Your task to perform on an android device: Show me popular videos on Youtube Image 0: 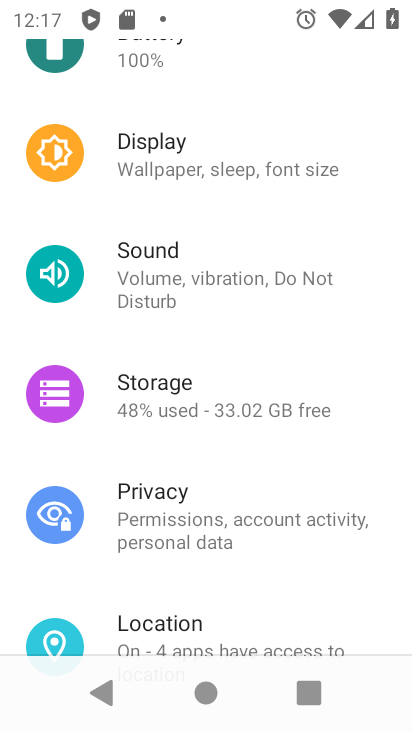
Step 0: press home button
Your task to perform on an android device: Show me popular videos on Youtube Image 1: 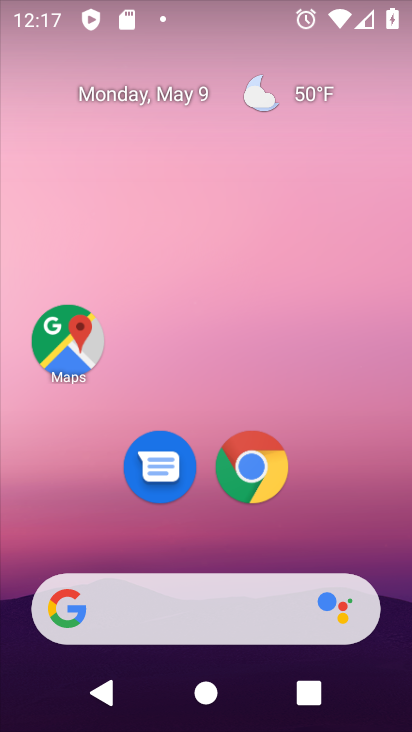
Step 1: drag from (205, 540) to (220, 35)
Your task to perform on an android device: Show me popular videos on Youtube Image 2: 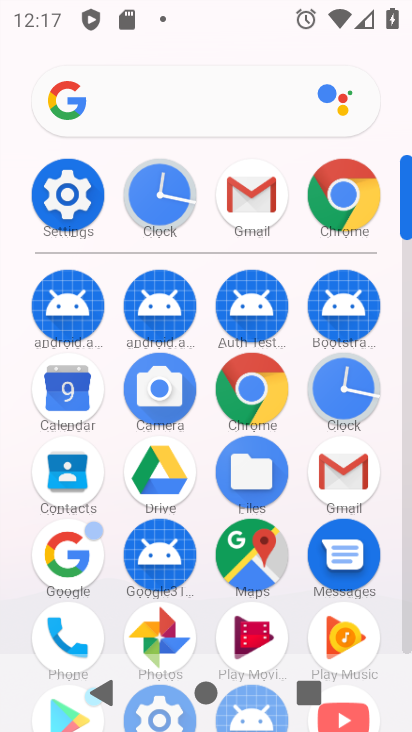
Step 2: drag from (208, 598) to (214, 192)
Your task to perform on an android device: Show me popular videos on Youtube Image 3: 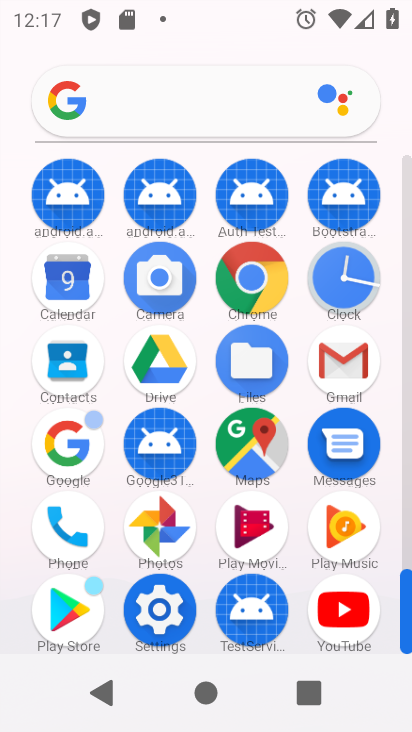
Step 3: click (339, 602)
Your task to perform on an android device: Show me popular videos on Youtube Image 4: 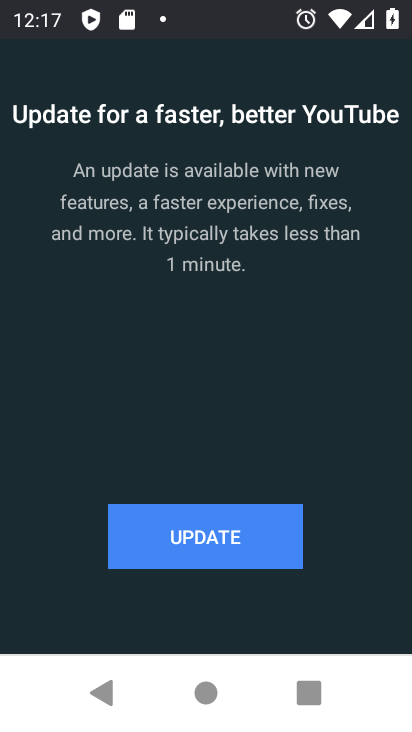
Step 4: click (215, 545)
Your task to perform on an android device: Show me popular videos on Youtube Image 5: 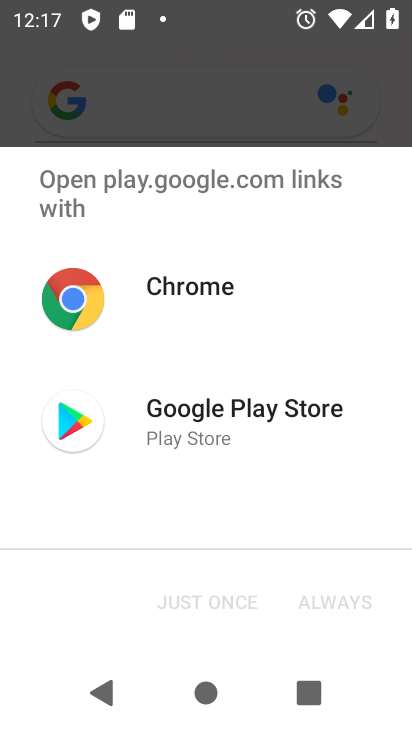
Step 5: click (119, 417)
Your task to perform on an android device: Show me popular videos on Youtube Image 6: 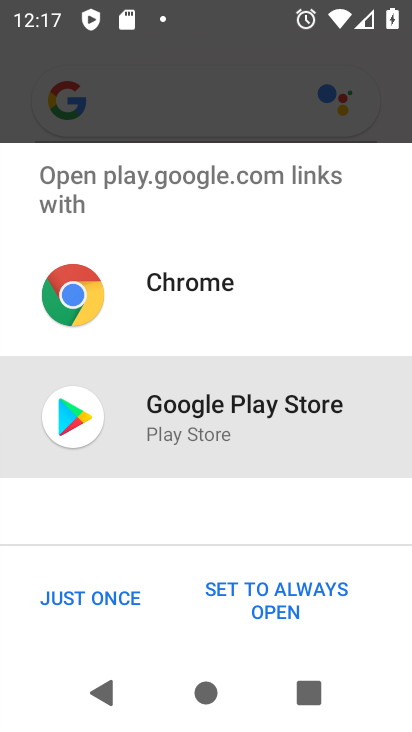
Step 6: click (79, 599)
Your task to perform on an android device: Show me popular videos on Youtube Image 7: 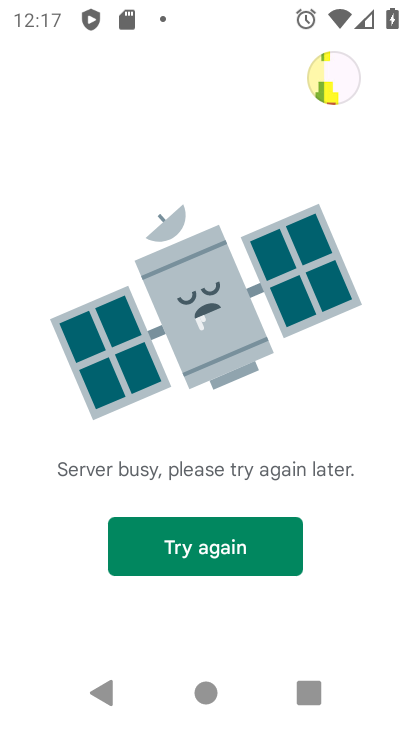
Step 7: click (208, 551)
Your task to perform on an android device: Show me popular videos on Youtube Image 8: 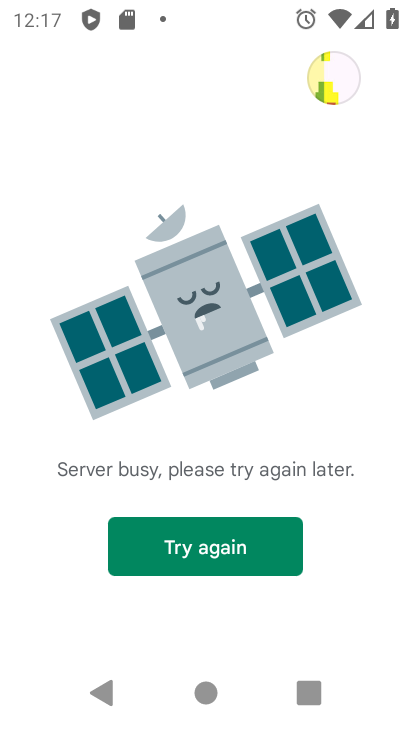
Step 8: click (205, 555)
Your task to perform on an android device: Show me popular videos on Youtube Image 9: 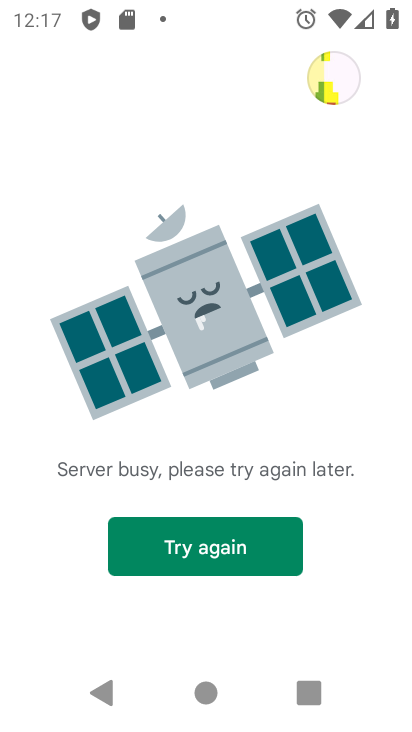
Step 9: task complete